Your task to perform on an android device: turn on the 24-hour format for clock Image 0: 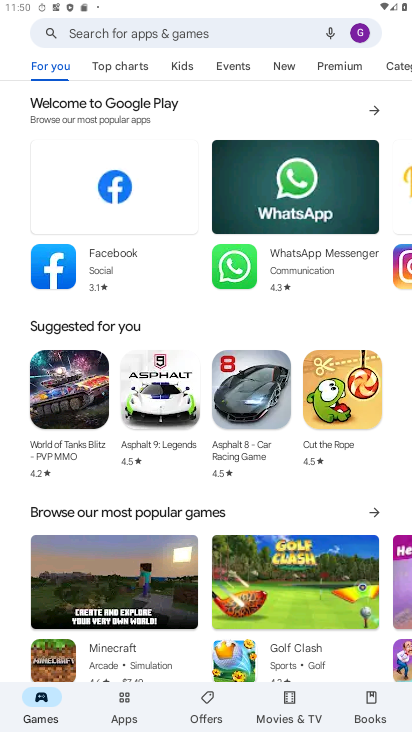
Step 0: press home button
Your task to perform on an android device: turn on the 24-hour format for clock Image 1: 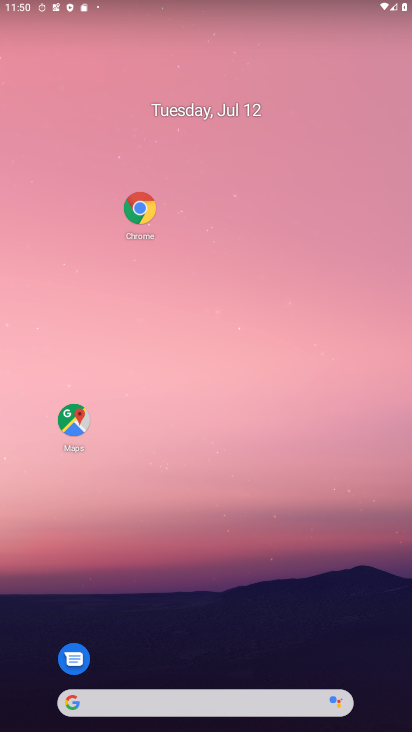
Step 1: drag from (308, 709) to (374, 102)
Your task to perform on an android device: turn on the 24-hour format for clock Image 2: 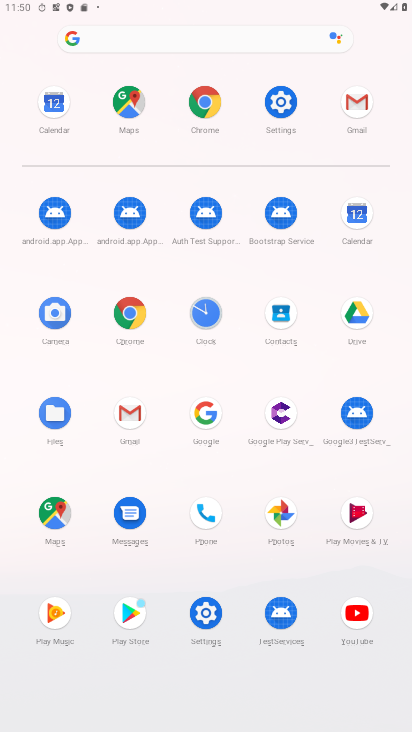
Step 2: click (206, 306)
Your task to perform on an android device: turn on the 24-hour format for clock Image 3: 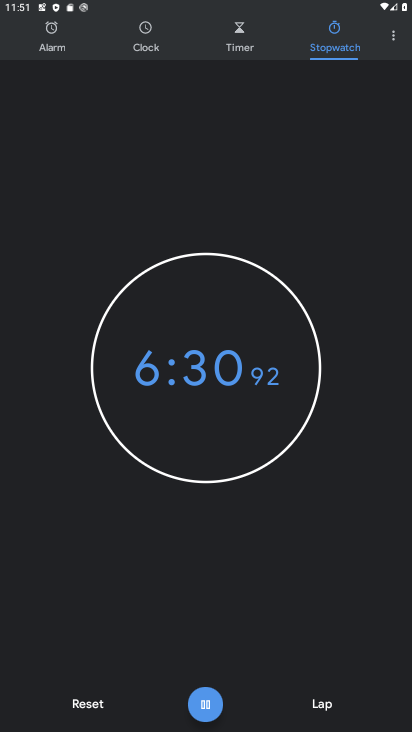
Step 3: click (393, 34)
Your task to perform on an android device: turn on the 24-hour format for clock Image 4: 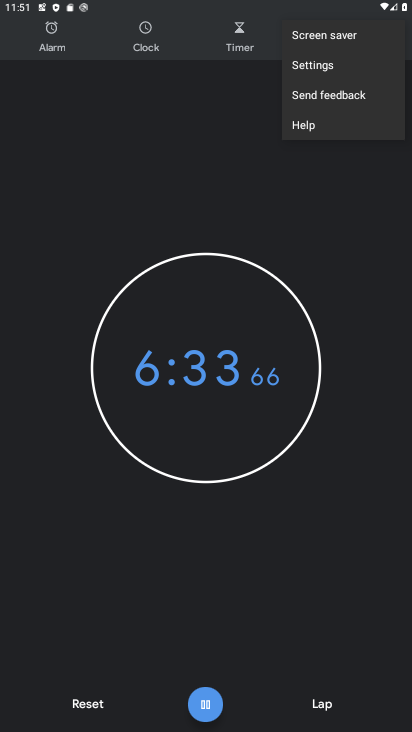
Step 4: click (342, 67)
Your task to perform on an android device: turn on the 24-hour format for clock Image 5: 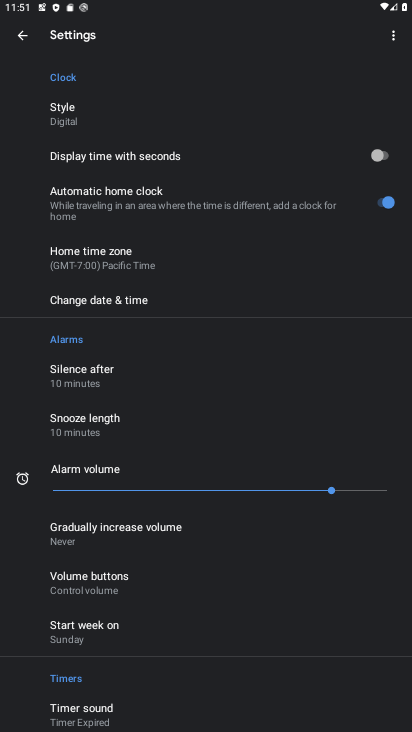
Step 5: click (141, 298)
Your task to perform on an android device: turn on the 24-hour format for clock Image 6: 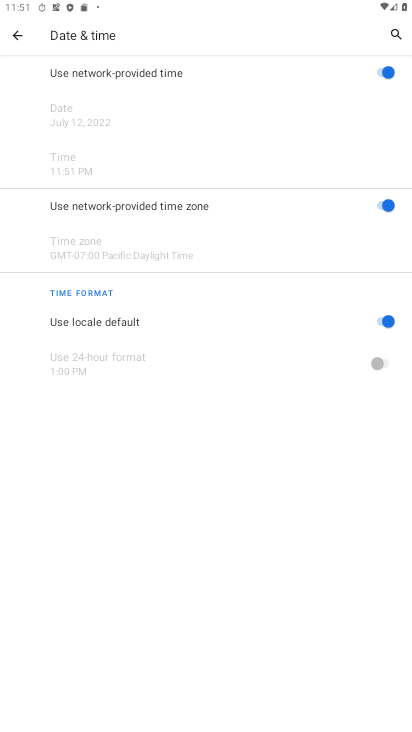
Step 6: click (384, 322)
Your task to perform on an android device: turn on the 24-hour format for clock Image 7: 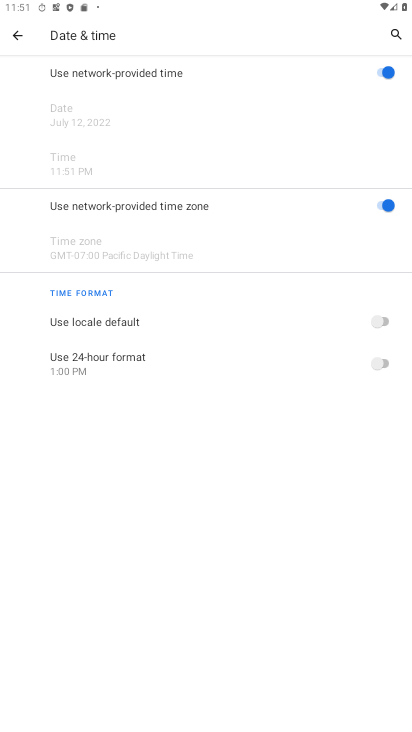
Step 7: click (387, 364)
Your task to perform on an android device: turn on the 24-hour format for clock Image 8: 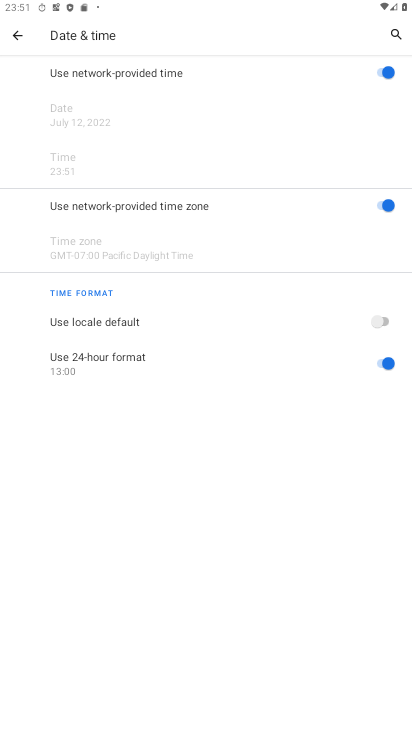
Step 8: task complete